Your task to perform on an android device: change your default location settings in chrome Image 0: 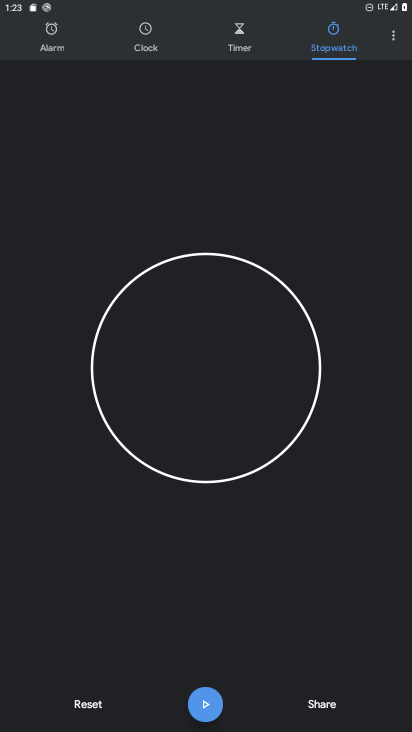
Step 0: press home button
Your task to perform on an android device: change your default location settings in chrome Image 1: 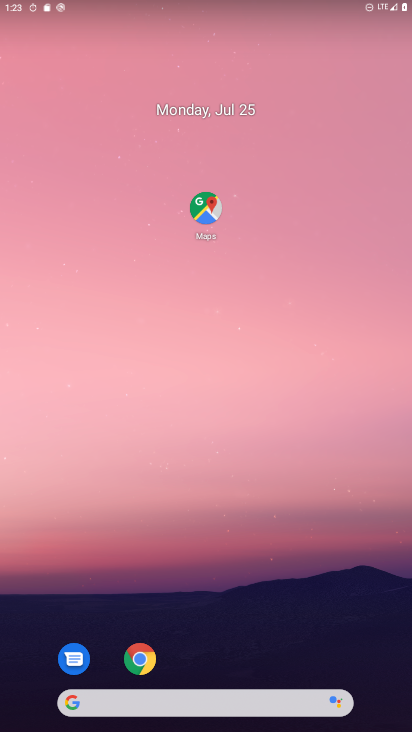
Step 1: click (143, 651)
Your task to perform on an android device: change your default location settings in chrome Image 2: 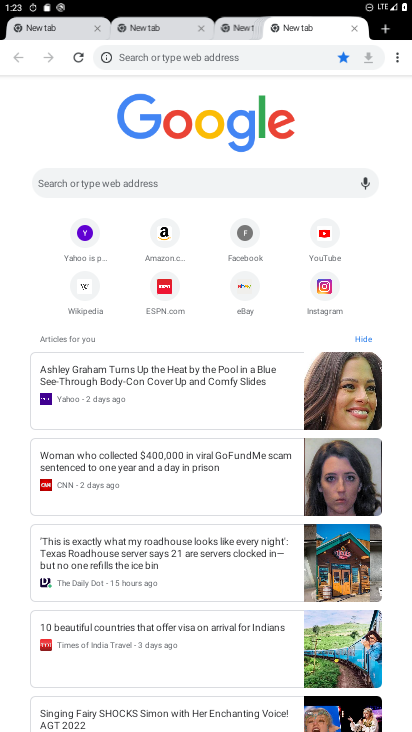
Step 2: click (394, 62)
Your task to perform on an android device: change your default location settings in chrome Image 3: 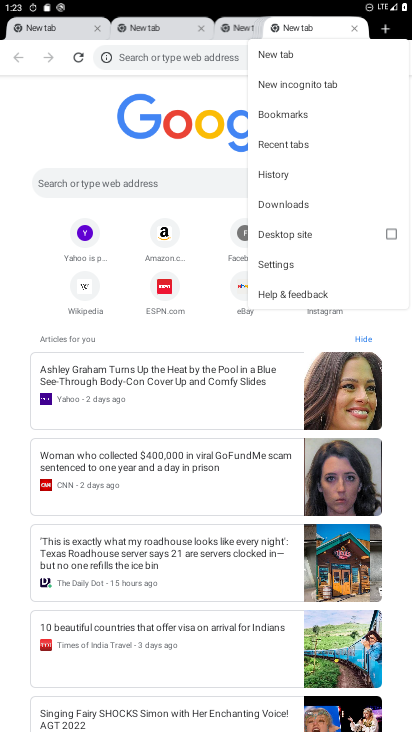
Step 3: click (289, 267)
Your task to perform on an android device: change your default location settings in chrome Image 4: 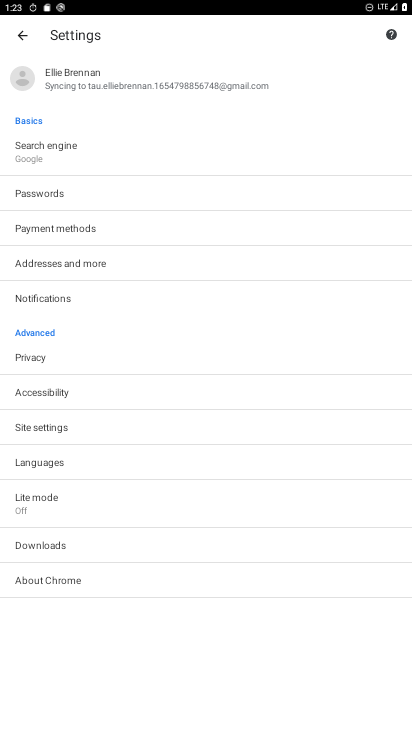
Step 4: click (64, 436)
Your task to perform on an android device: change your default location settings in chrome Image 5: 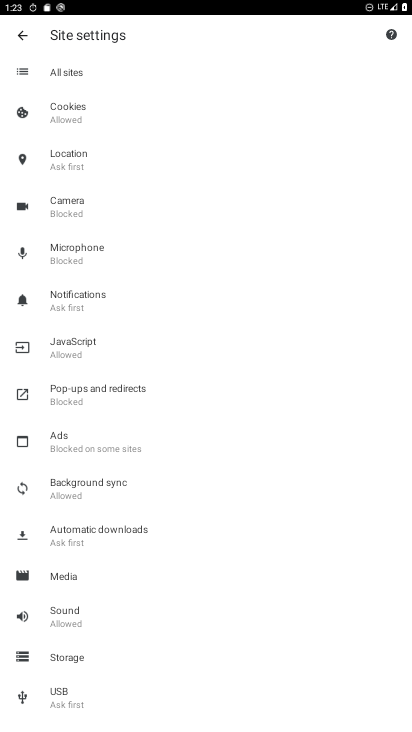
Step 5: click (82, 162)
Your task to perform on an android device: change your default location settings in chrome Image 6: 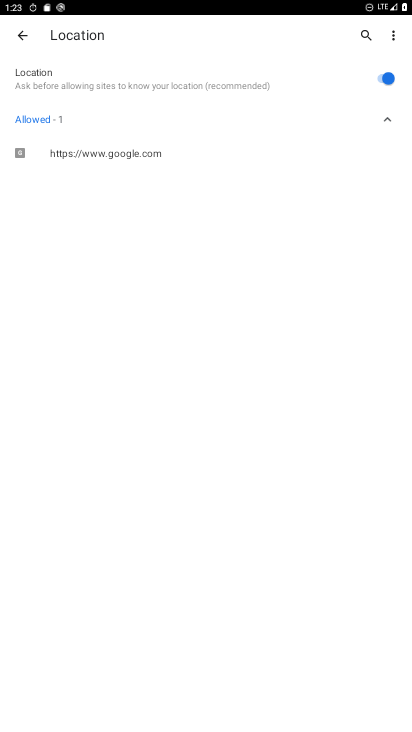
Step 6: task complete